Your task to perform on an android device: What's the weather? Image 0: 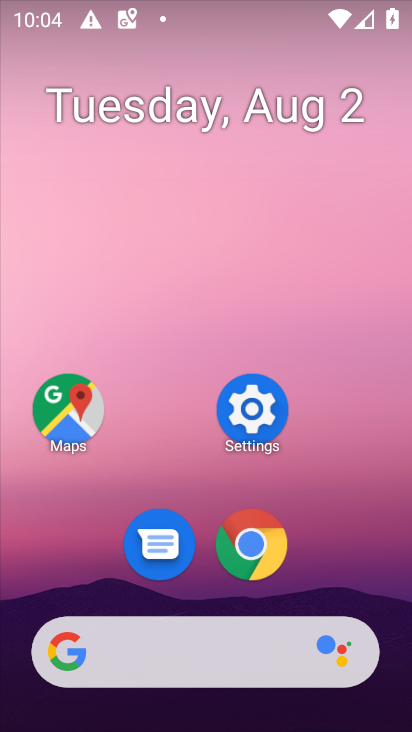
Step 0: click (162, 645)
Your task to perform on an android device: What's the weather? Image 1: 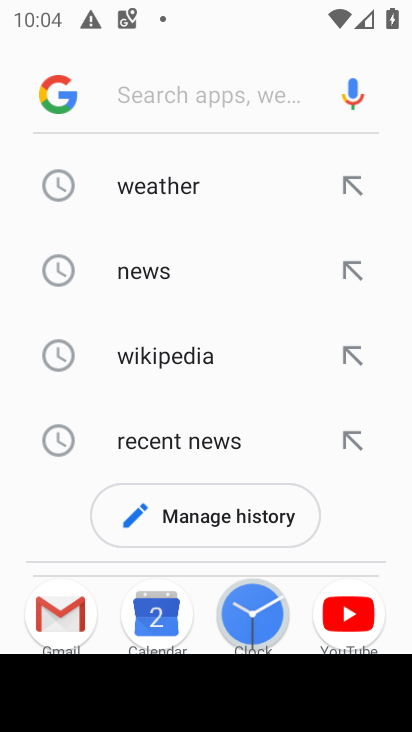
Step 1: click (153, 187)
Your task to perform on an android device: What's the weather? Image 2: 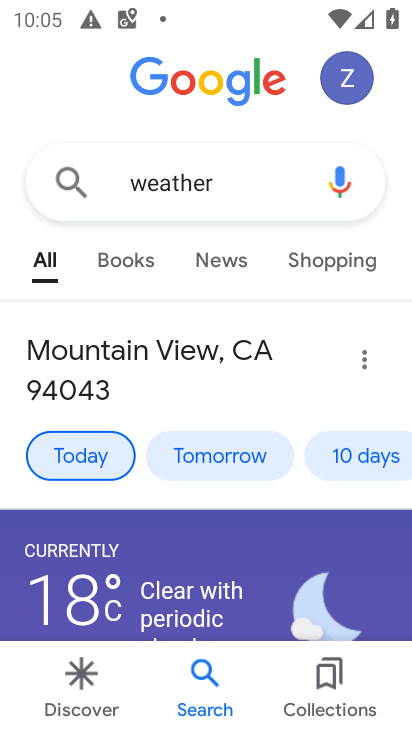
Step 2: task complete